Your task to perform on an android device: Search for vegetarian restaurants on Maps Image 0: 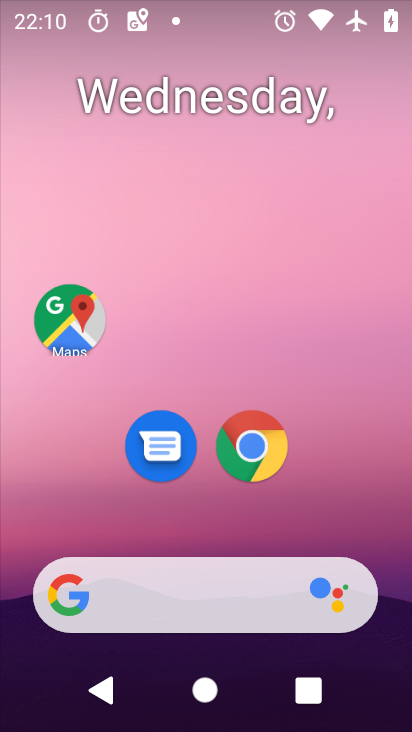
Step 0: press home button
Your task to perform on an android device: Search for vegetarian restaurants on Maps Image 1: 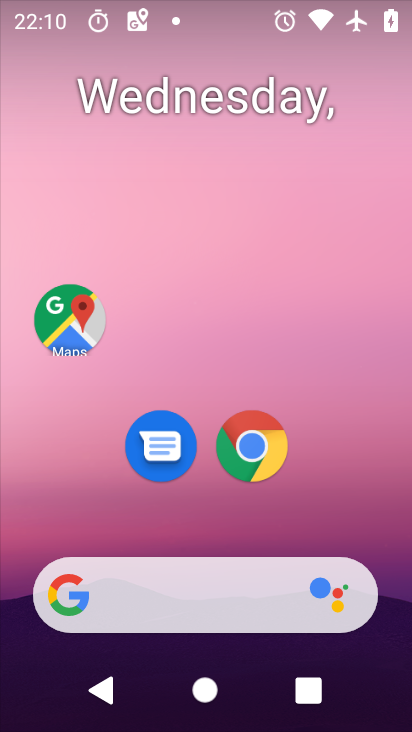
Step 1: drag from (168, 615) to (316, 109)
Your task to perform on an android device: Search for vegetarian restaurants on Maps Image 2: 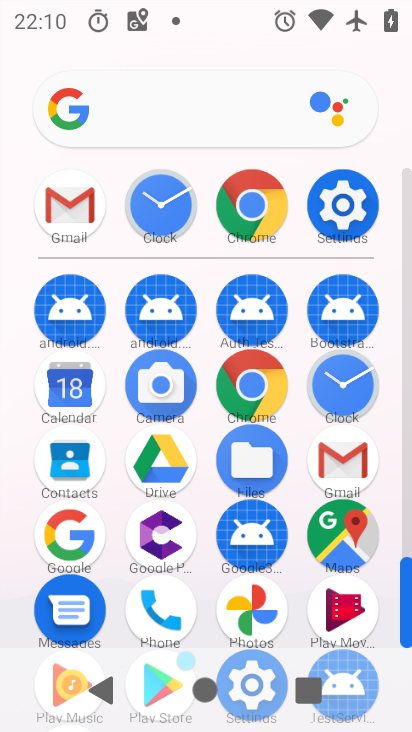
Step 2: click (341, 553)
Your task to perform on an android device: Search for vegetarian restaurants on Maps Image 3: 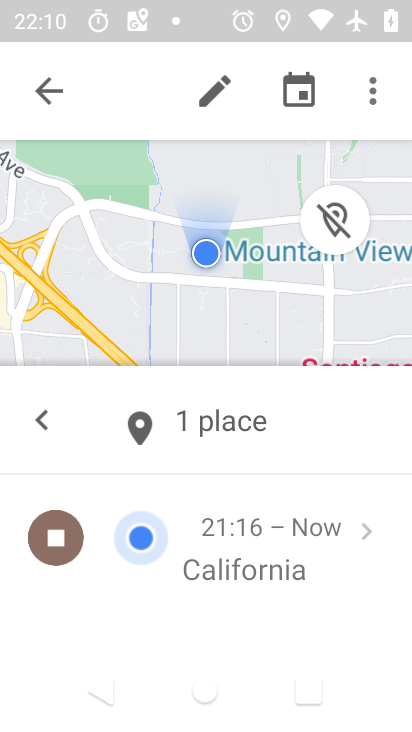
Step 3: click (48, 76)
Your task to perform on an android device: Search for vegetarian restaurants on Maps Image 4: 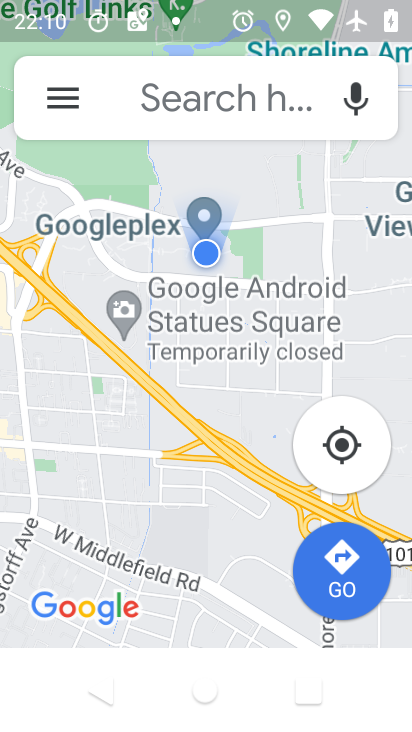
Step 4: click (160, 88)
Your task to perform on an android device: Search for vegetarian restaurants on Maps Image 5: 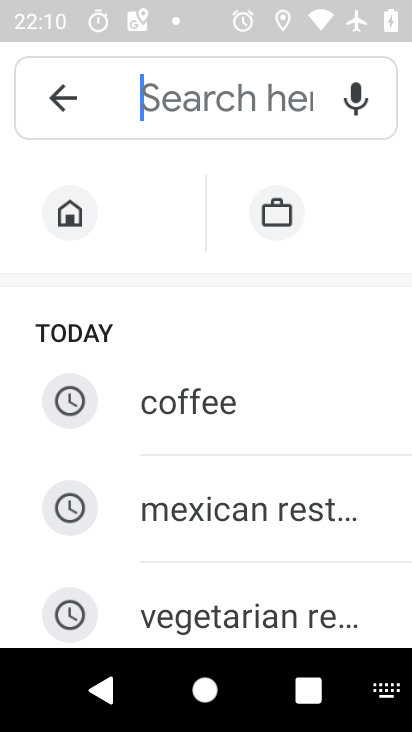
Step 5: click (167, 601)
Your task to perform on an android device: Search for vegetarian restaurants on Maps Image 6: 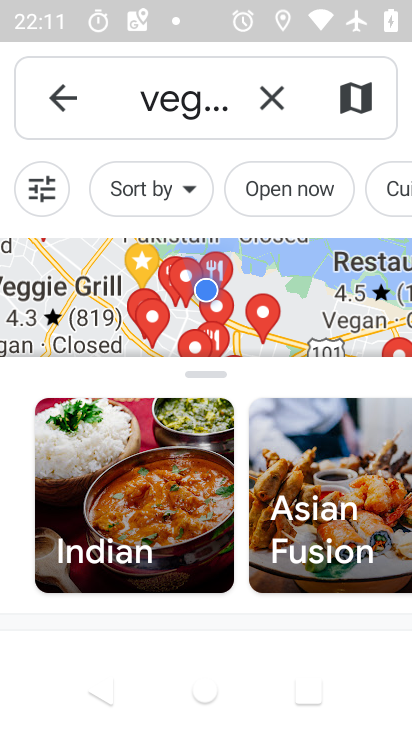
Step 6: task complete